Your task to perform on an android device: toggle sleep mode Image 0: 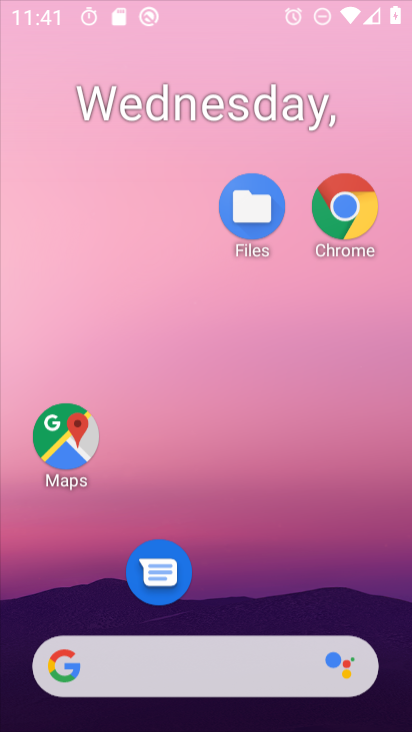
Step 0: click (134, 546)
Your task to perform on an android device: toggle sleep mode Image 1: 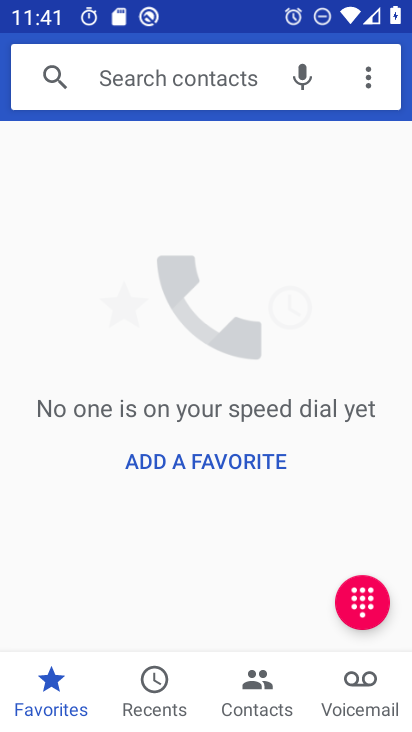
Step 1: press home button
Your task to perform on an android device: toggle sleep mode Image 2: 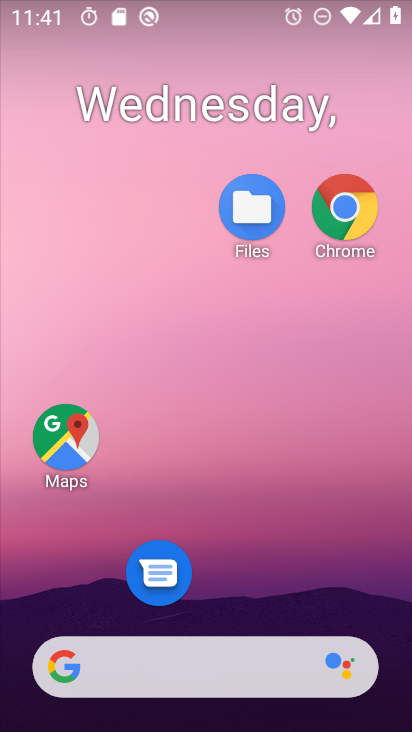
Step 2: drag from (273, 627) to (295, 408)
Your task to perform on an android device: toggle sleep mode Image 3: 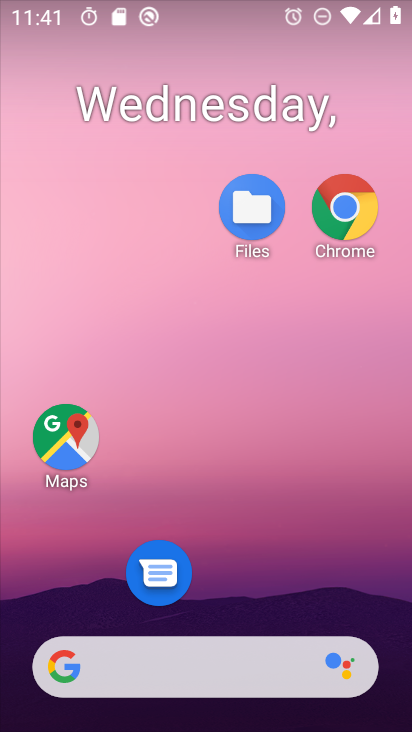
Step 3: drag from (245, 582) to (297, 187)
Your task to perform on an android device: toggle sleep mode Image 4: 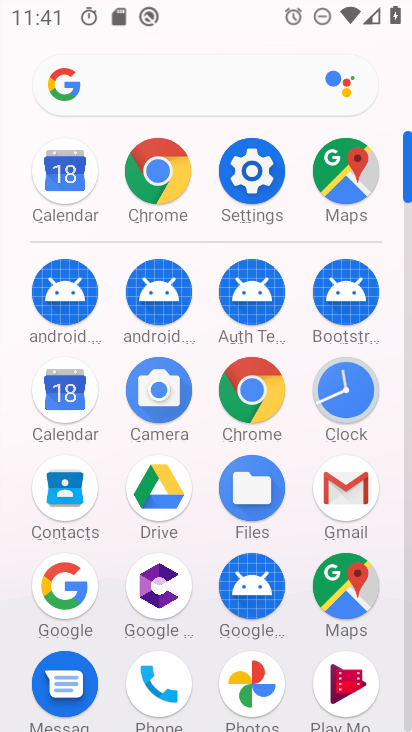
Step 4: click (252, 199)
Your task to perform on an android device: toggle sleep mode Image 5: 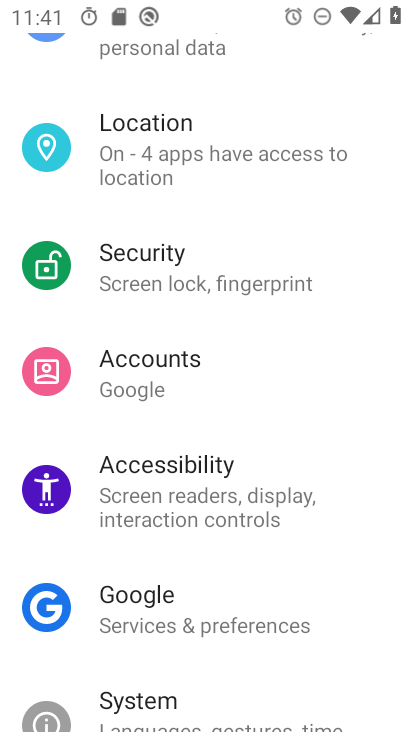
Step 5: drag from (232, 406) to (232, 256)
Your task to perform on an android device: toggle sleep mode Image 6: 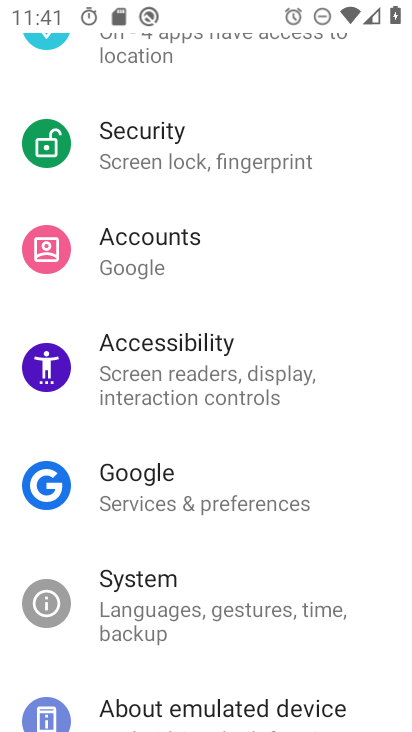
Step 6: drag from (232, 257) to (215, 721)
Your task to perform on an android device: toggle sleep mode Image 7: 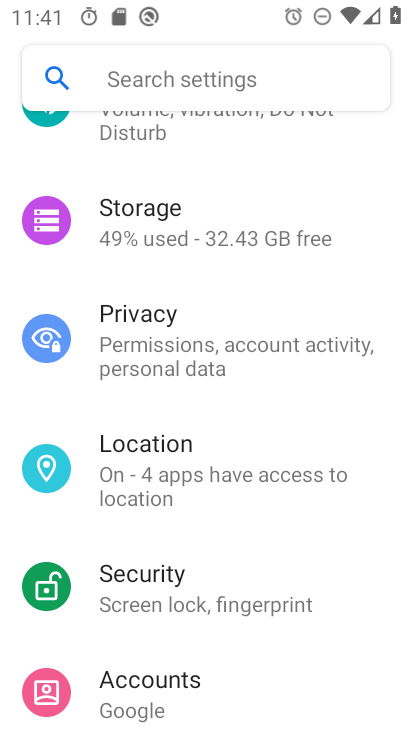
Step 7: drag from (232, 279) to (219, 592)
Your task to perform on an android device: toggle sleep mode Image 8: 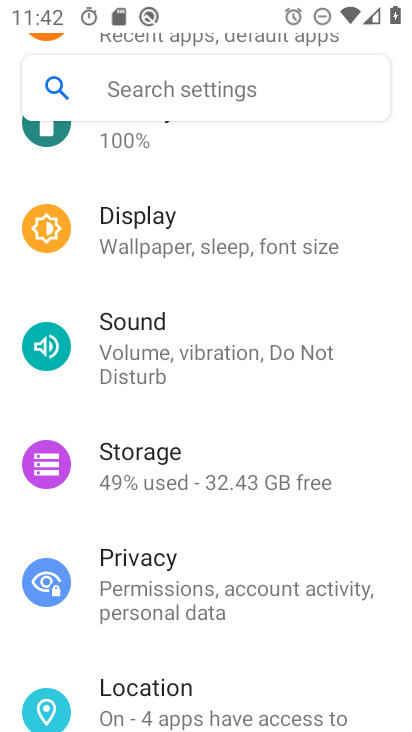
Step 8: click (247, 248)
Your task to perform on an android device: toggle sleep mode Image 9: 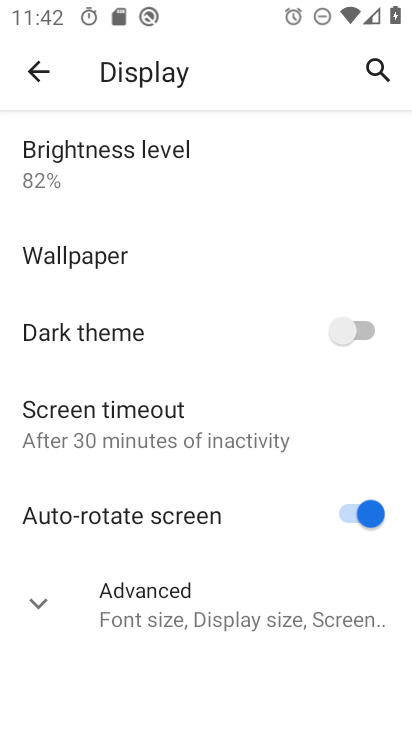
Step 9: task complete